Your task to perform on an android device: Open wifi settings Image 0: 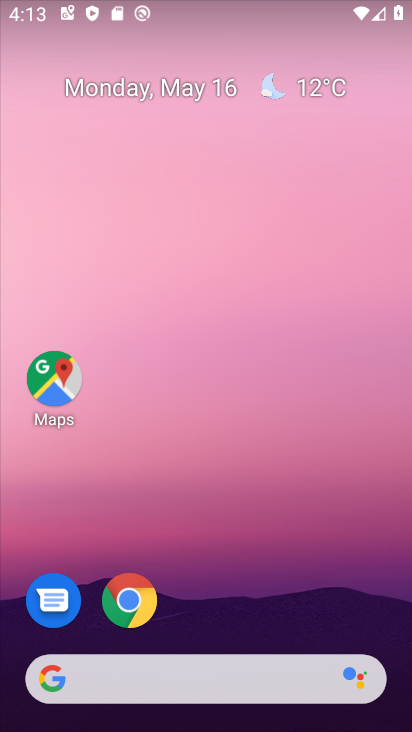
Step 0: drag from (203, 664) to (261, 211)
Your task to perform on an android device: Open wifi settings Image 1: 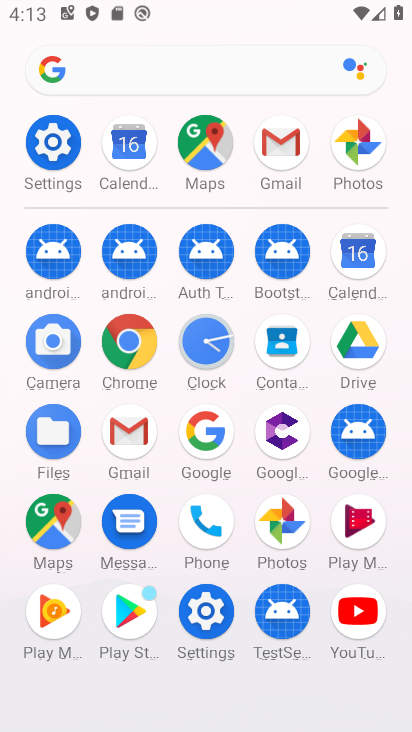
Step 1: click (54, 148)
Your task to perform on an android device: Open wifi settings Image 2: 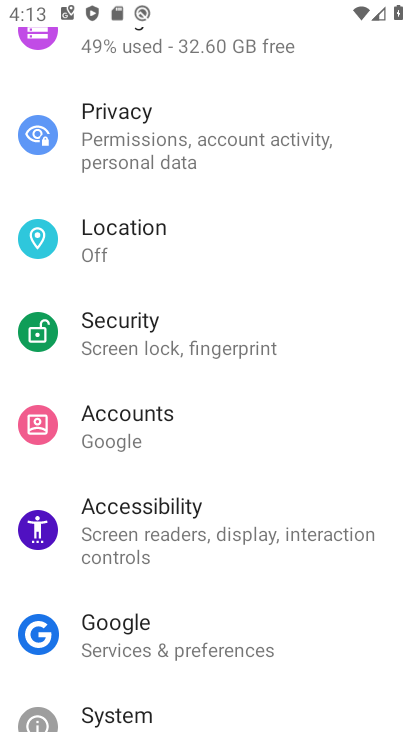
Step 2: drag from (223, 155) to (224, 324)
Your task to perform on an android device: Open wifi settings Image 3: 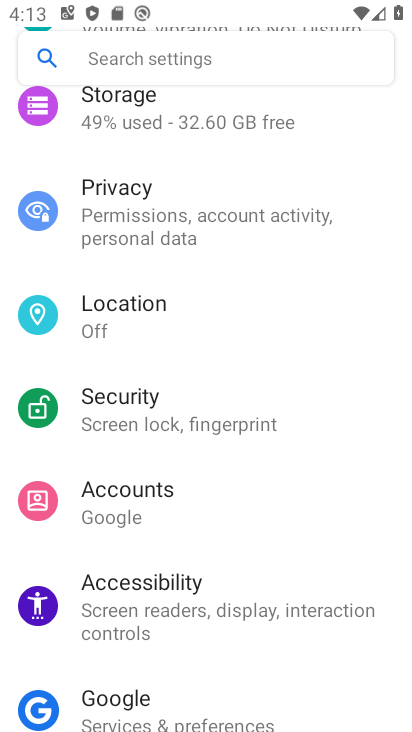
Step 3: drag from (202, 172) to (201, 407)
Your task to perform on an android device: Open wifi settings Image 4: 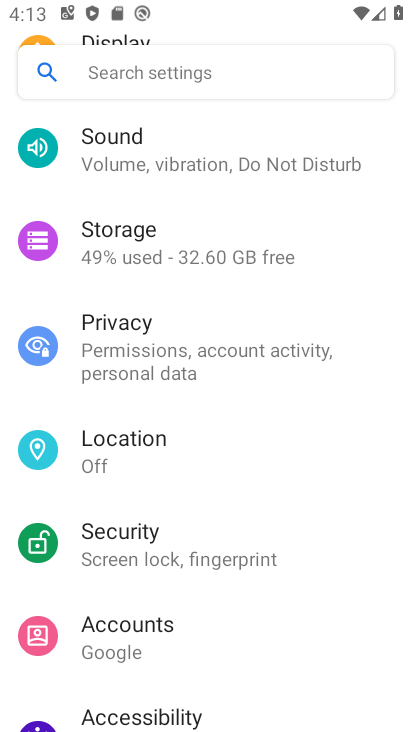
Step 4: drag from (185, 193) to (209, 369)
Your task to perform on an android device: Open wifi settings Image 5: 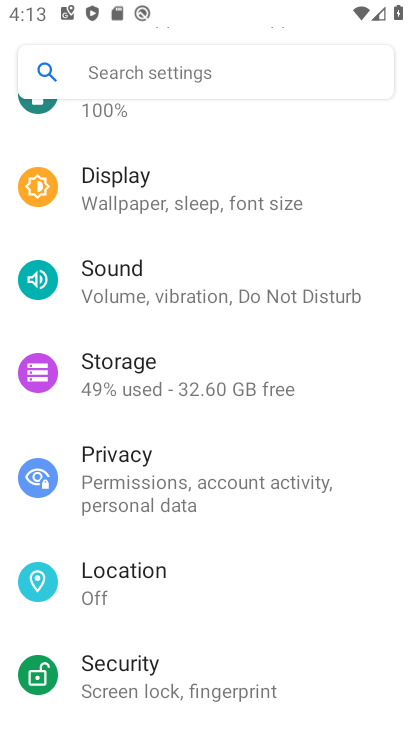
Step 5: drag from (171, 117) to (205, 525)
Your task to perform on an android device: Open wifi settings Image 6: 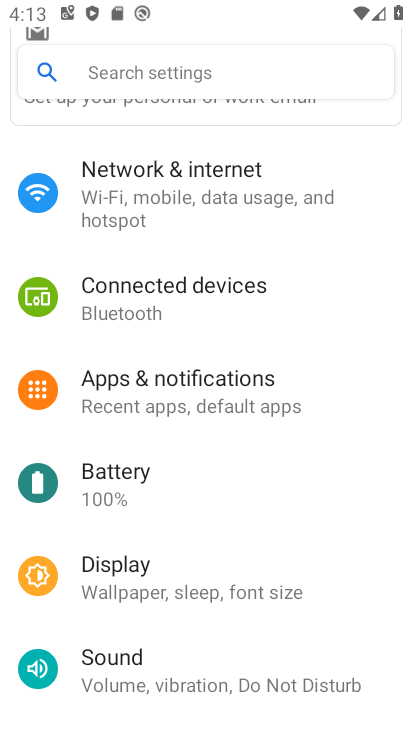
Step 6: click (155, 188)
Your task to perform on an android device: Open wifi settings Image 7: 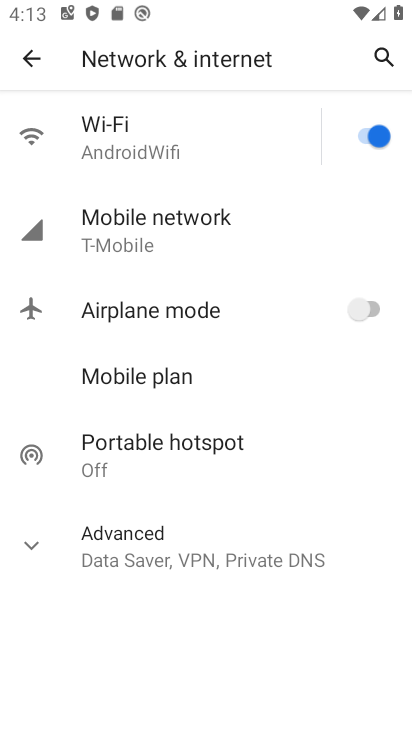
Step 7: click (100, 139)
Your task to perform on an android device: Open wifi settings Image 8: 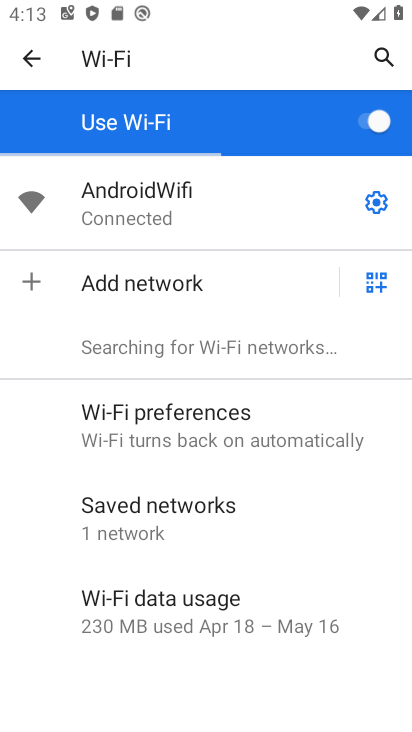
Step 8: click (370, 205)
Your task to perform on an android device: Open wifi settings Image 9: 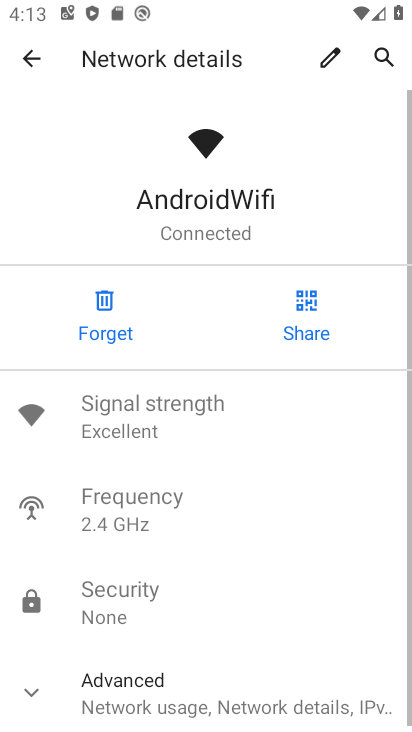
Step 9: drag from (210, 540) to (241, 180)
Your task to perform on an android device: Open wifi settings Image 10: 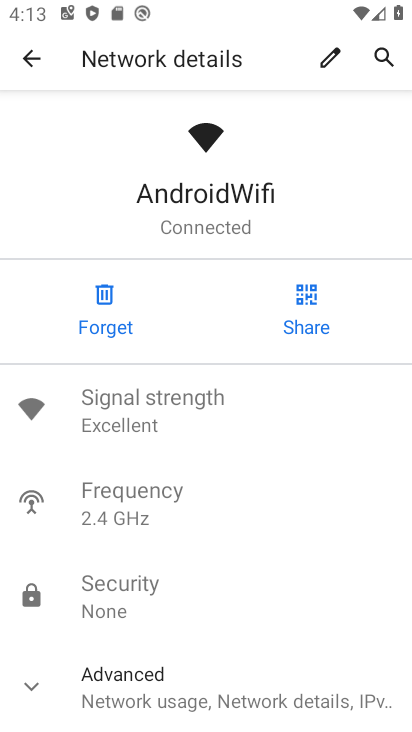
Step 10: click (98, 695)
Your task to perform on an android device: Open wifi settings Image 11: 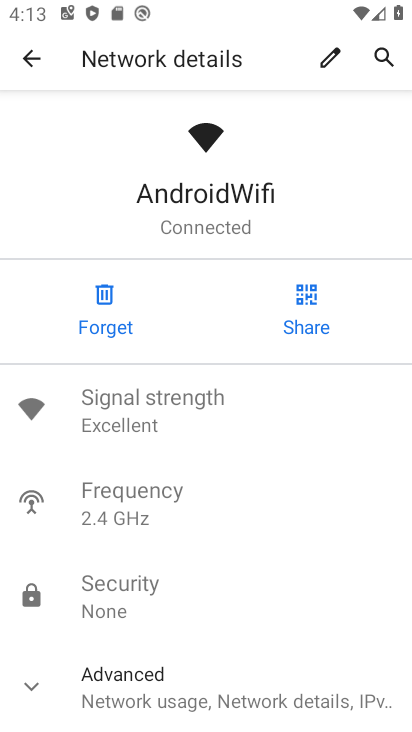
Step 11: click (24, 689)
Your task to perform on an android device: Open wifi settings Image 12: 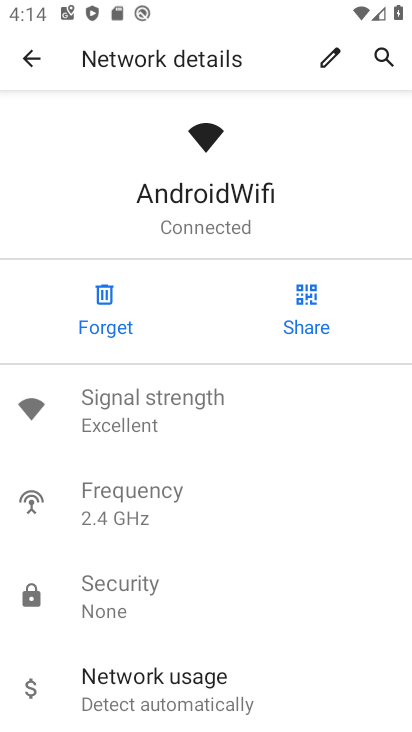
Step 12: task complete